Your task to perform on an android device: turn on improve location accuracy Image 0: 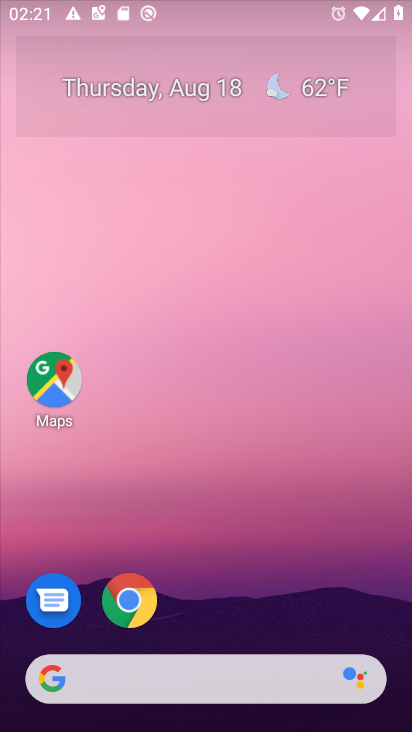
Step 0: press home button
Your task to perform on an android device: turn on improve location accuracy Image 1: 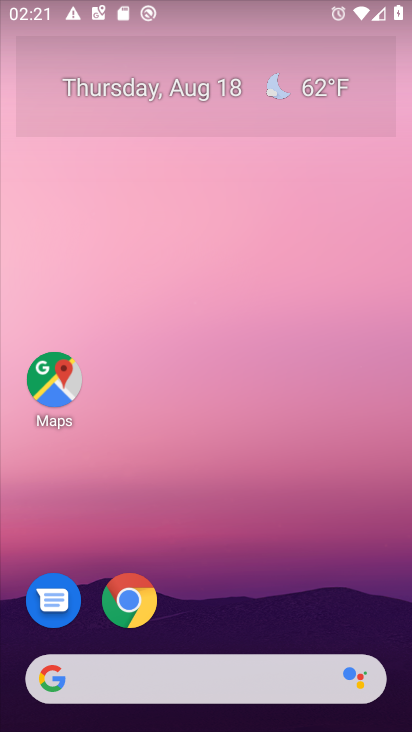
Step 1: drag from (247, 613) to (242, 173)
Your task to perform on an android device: turn on improve location accuracy Image 2: 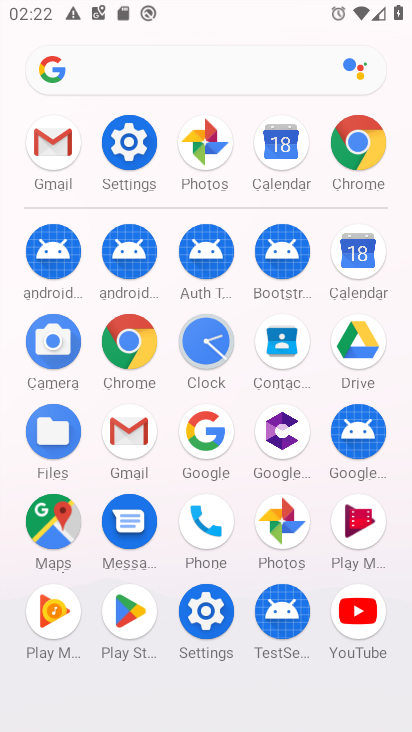
Step 2: click (134, 147)
Your task to perform on an android device: turn on improve location accuracy Image 3: 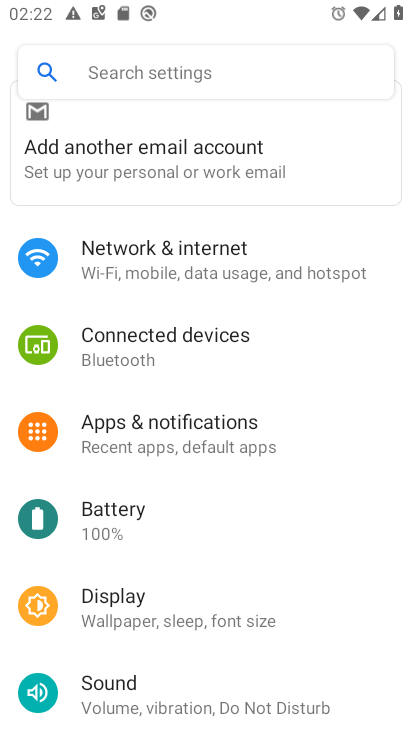
Step 3: drag from (195, 671) to (207, 327)
Your task to perform on an android device: turn on improve location accuracy Image 4: 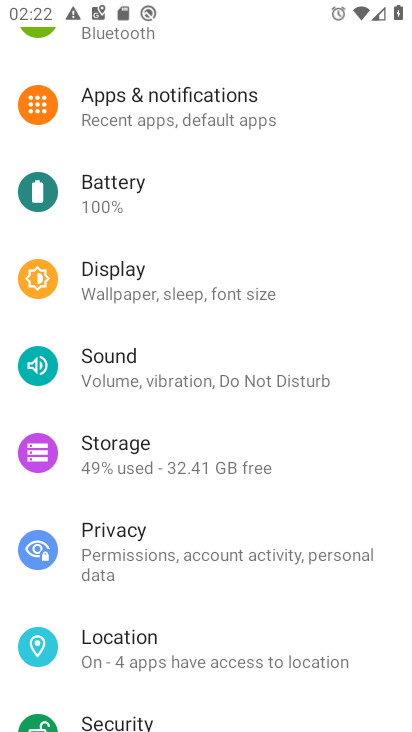
Step 4: click (161, 647)
Your task to perform on an android device: turn on improve location accuracy Image 5: 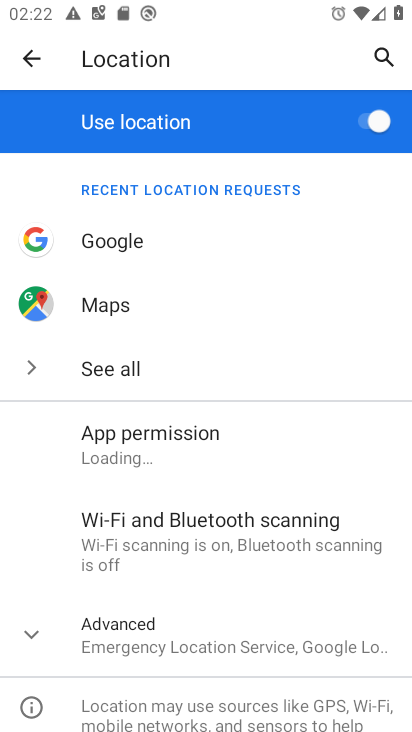
Step 5: drag from (62, 664) to (59, 409)
Your task to perform on an android device: turn on improve location accuracy Image 6: 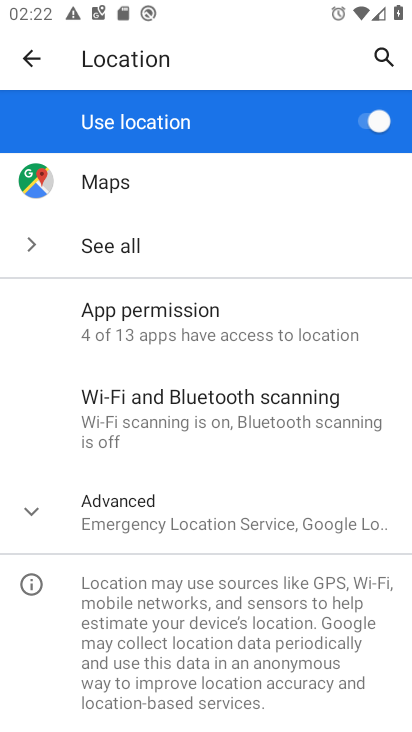
Step 6: click (41, 498)
Your task to perform on an android device: turn on improve location accuracy Image 7: 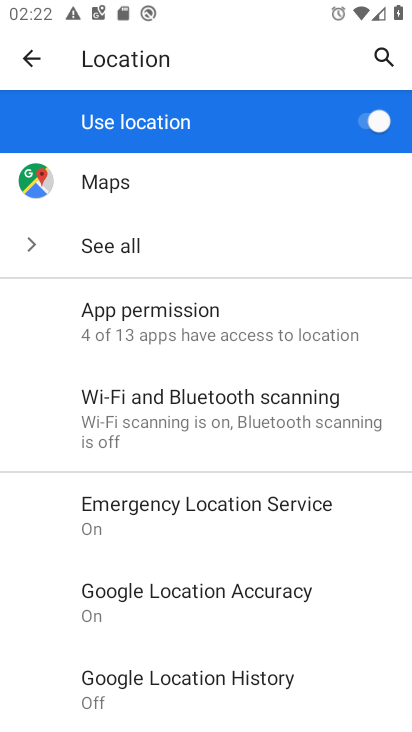
Step 7: task complete